Your task to perform on an android device: Open Google Chrome and click the shortcut for Amazon.com Image 0: 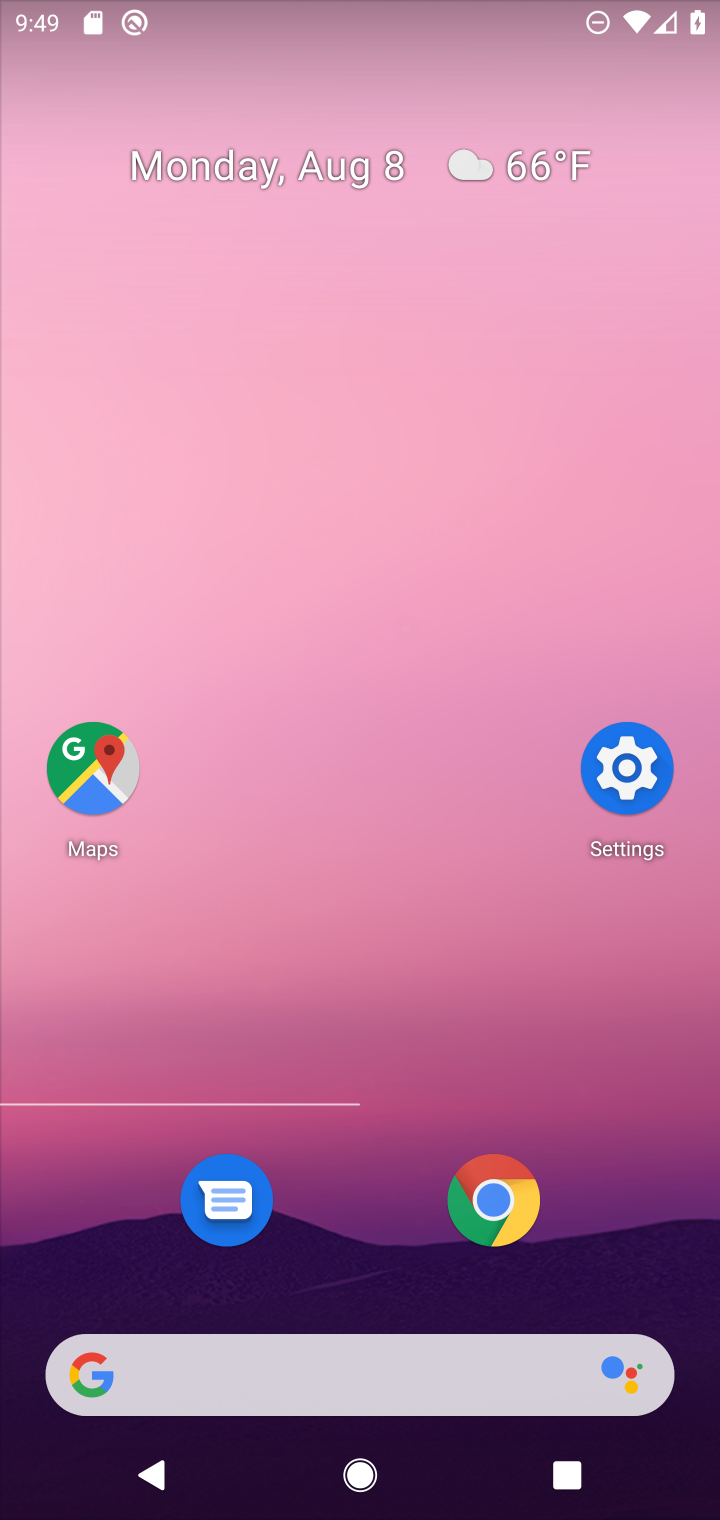
Step 0: press home button
Your task to perform on an android device: Open Google Chrome and click the shortcut for Amazon.com Image 1: 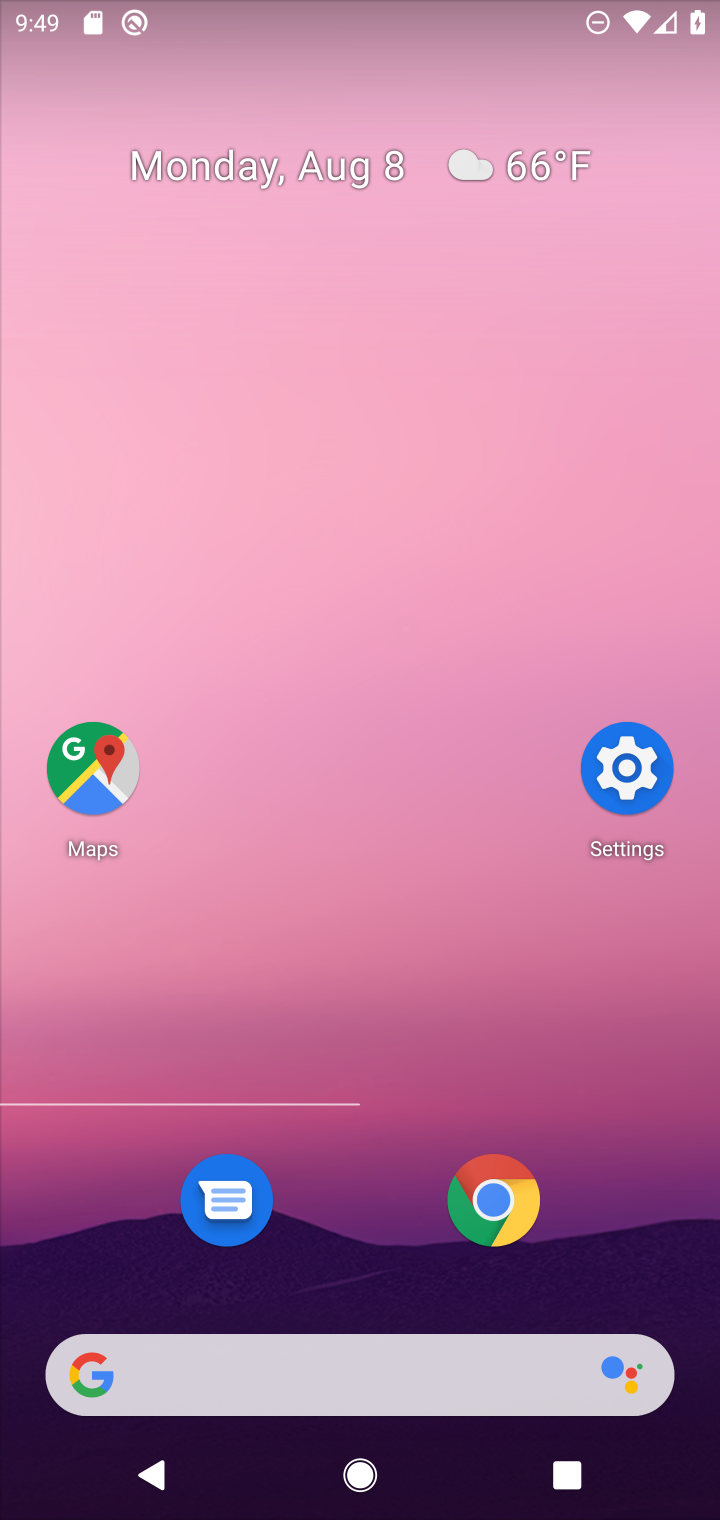
Step 1: click (488, 1212)
Your task to perform on an android device: Open Google Chrome and click the shortcut for Amazon.com Image 2: 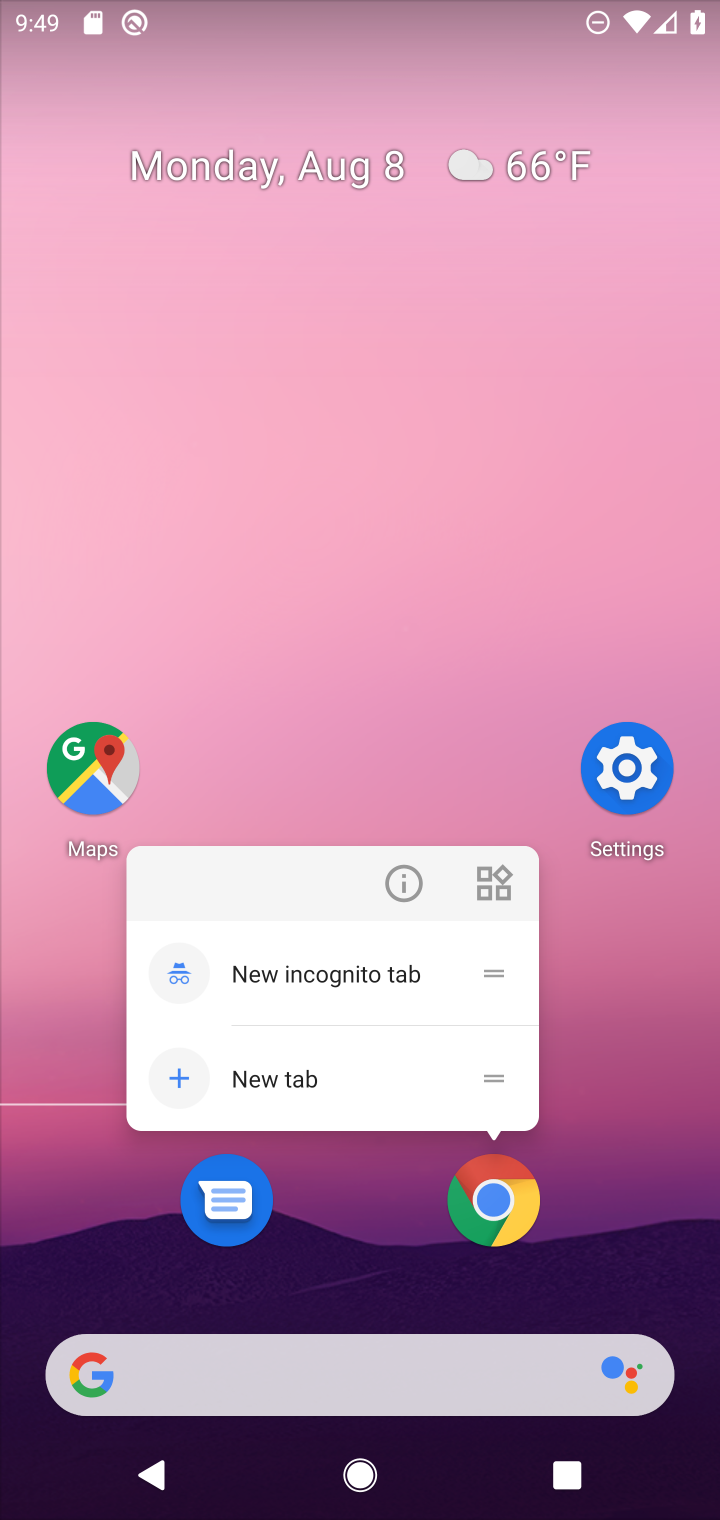
Step 2: click (488, 1212)
Your task to perform on an android device: Open Google Chrome and click the shortcut for Amazon.com Image 3: 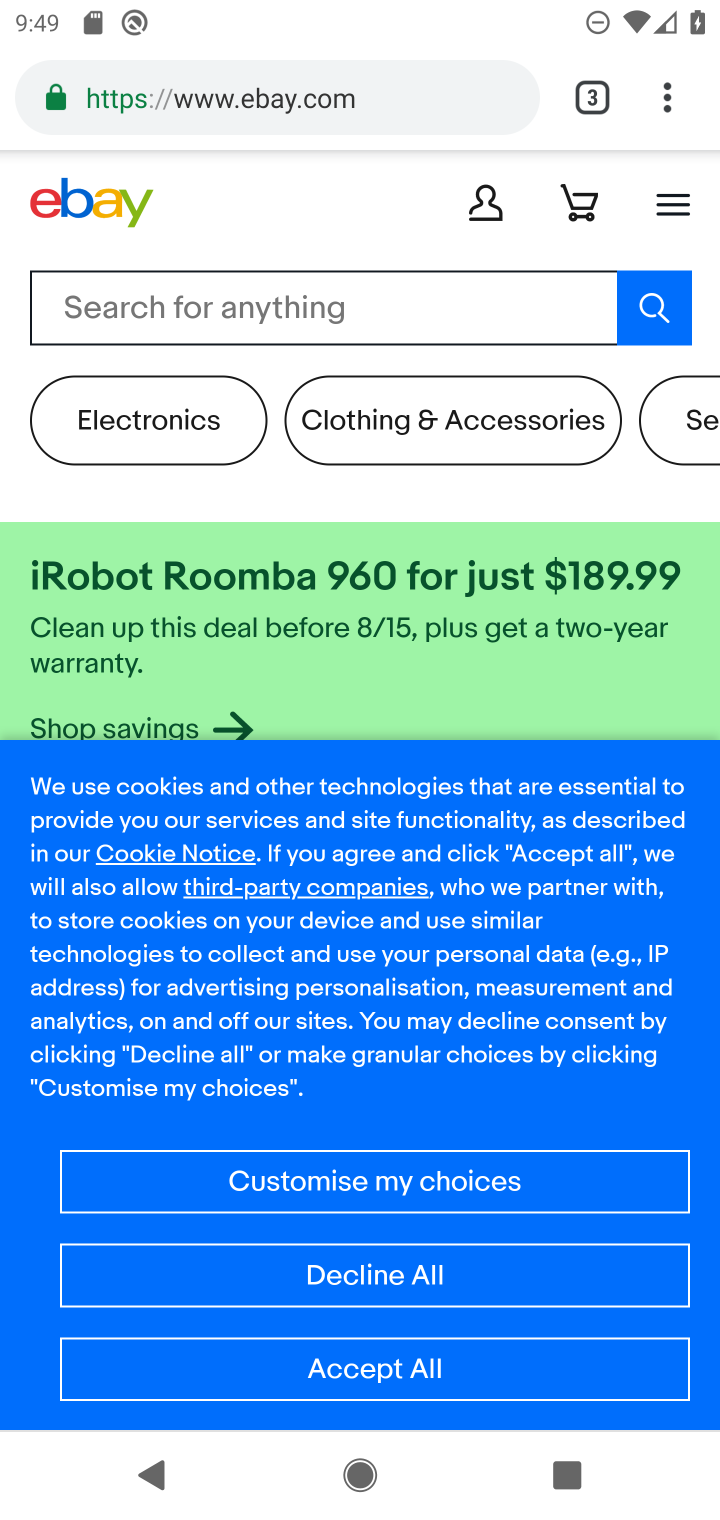
Step 3: drag from (658, 103) to (371, 306)
Your task to perform on an android device: Open Google Chrome and click the shortcut for Amazon.com Image 4: 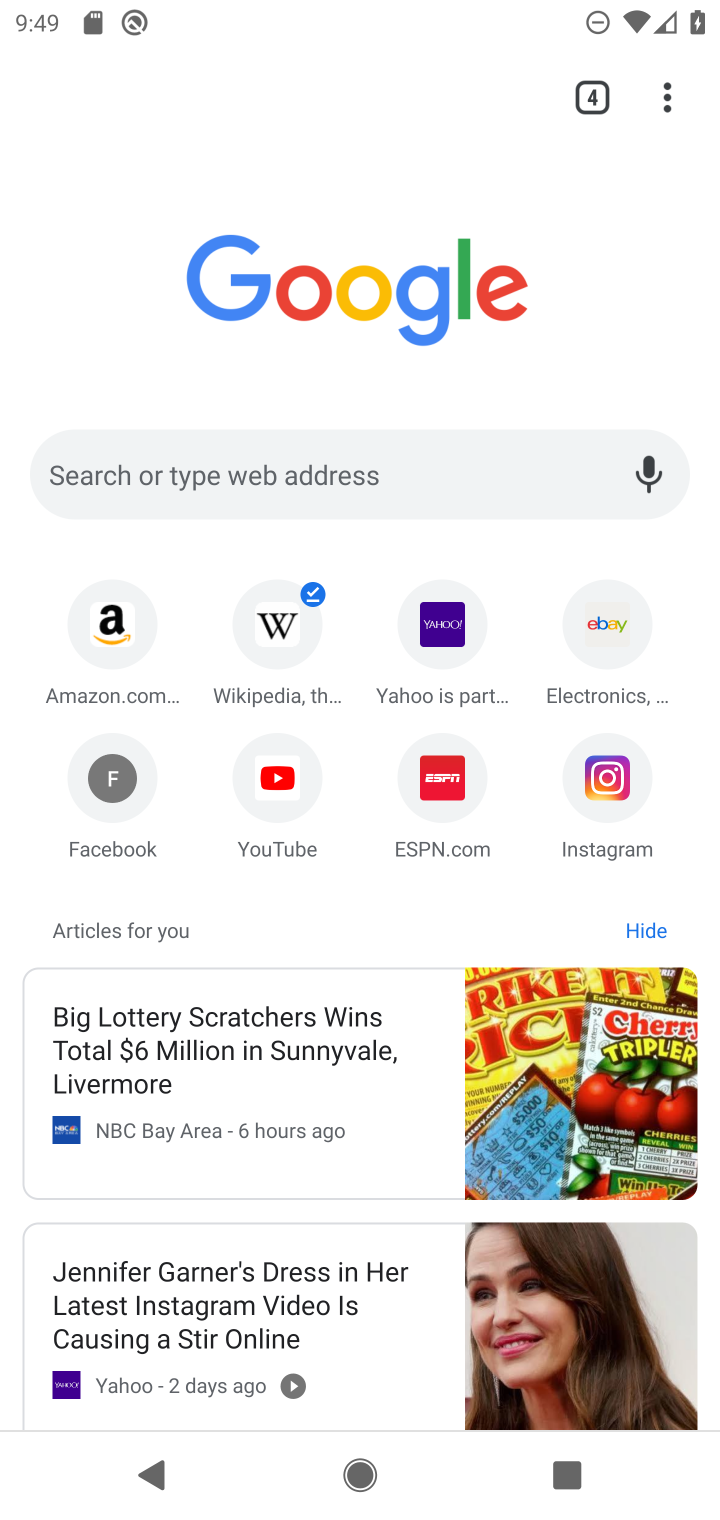
Step 4: click (103, 628)
Your task to perform on an android device: Open Google Chrome and click the shortcut for Amazon.com Image 5: 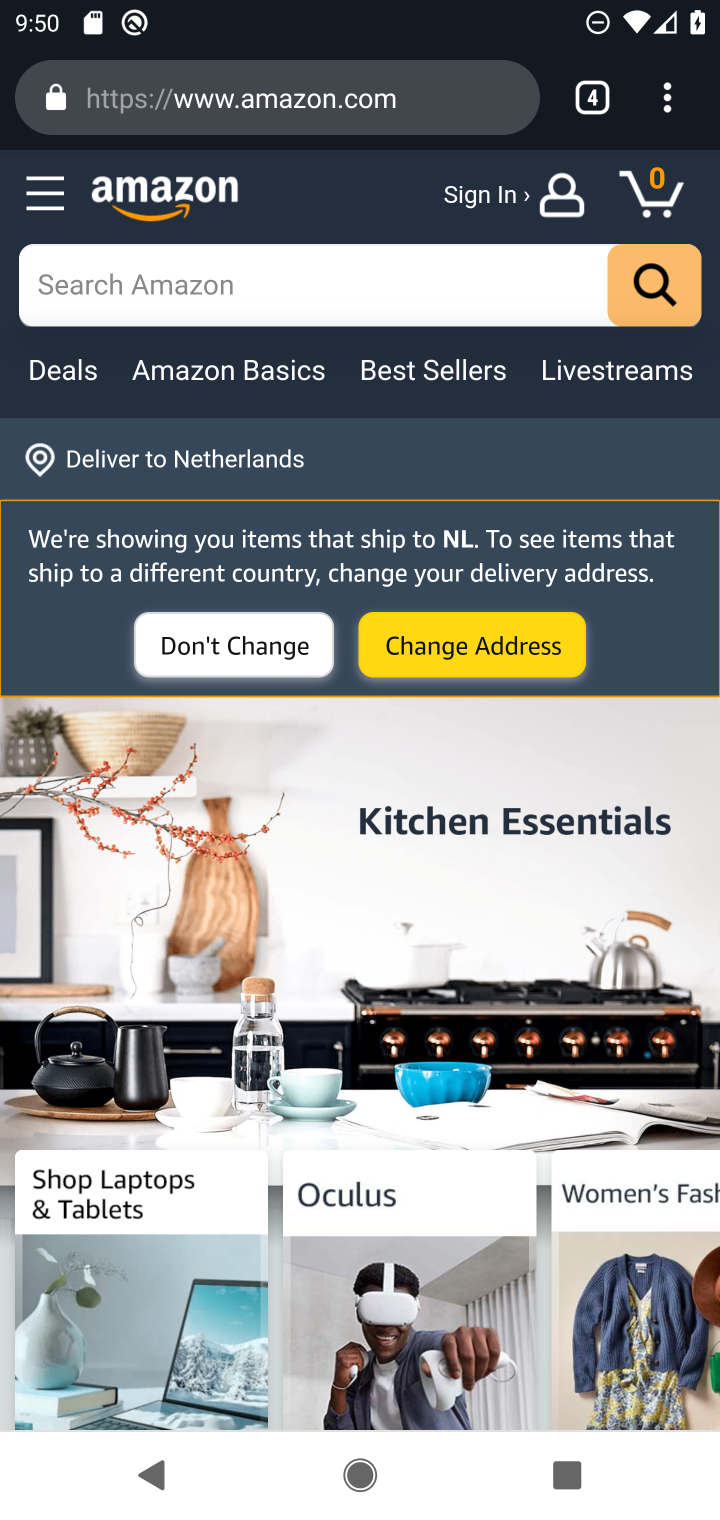
Step 5: task complete